Your task to perform on an android device: Open the calendar app, open the side menu, and click the "Day" option Image 0: 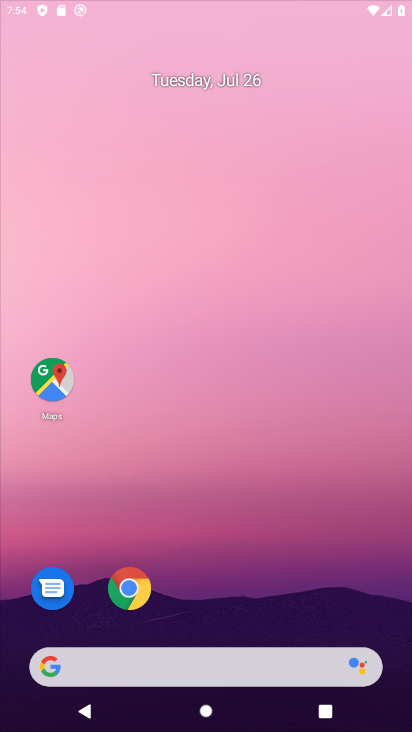
Step 0: press home button
Your task to perform on an android device: Open the calendar app, open the side menu, and click the "Day" option Image 1: 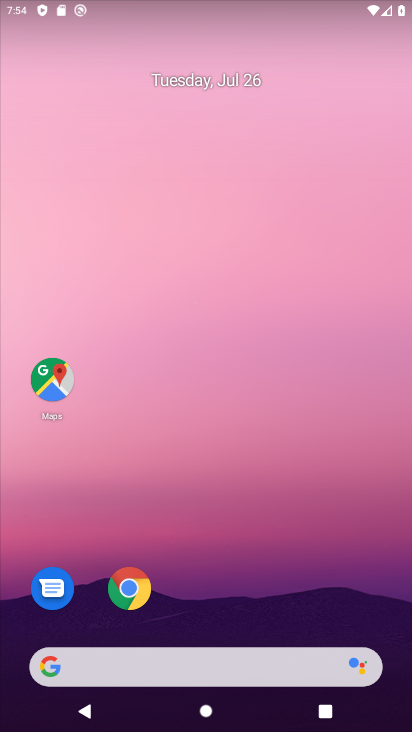
Step 1: drag from (164, 649) to (130, 48)
Your task to perform on an android device: Open the calendar app, open the side menu, and click the "Day" option Image 2: 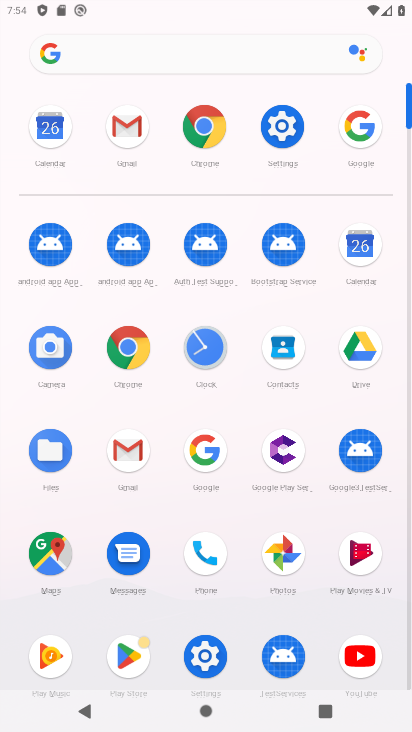
Step 2: click (350, 240)
Your task to perform on an android device: Open the calendar app, open the side menu, and click the "Day" option Image 3: 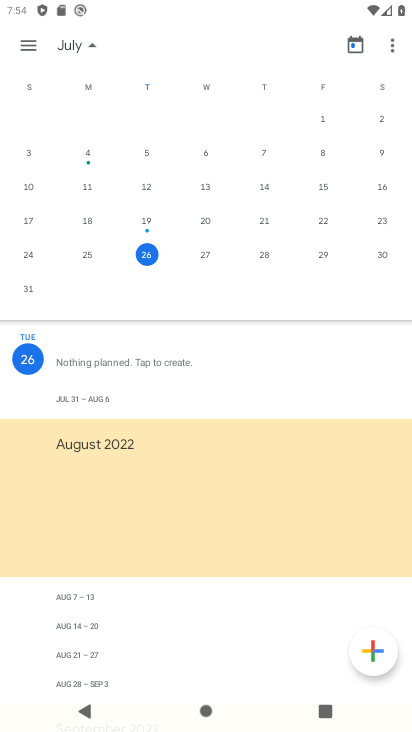
Step 3: click (30, 52)
Your task to perform on an android device: Open the calendar app, open the side menu, and click the "Day" option Image 4: 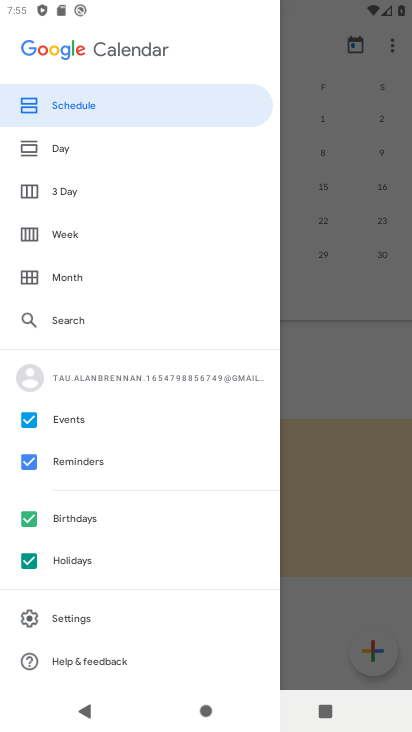
Step 4: click (59, 140)
Your task to perform on an android device: Open the calendar app, open the side menu, and click the "Day" option Image 5: 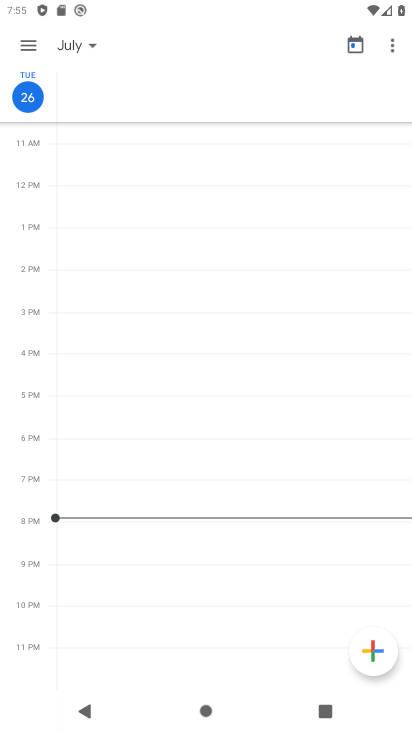
Step 5: task complete